Your task to perform on an android device: turn off smart reply in the gmail app Image 0: 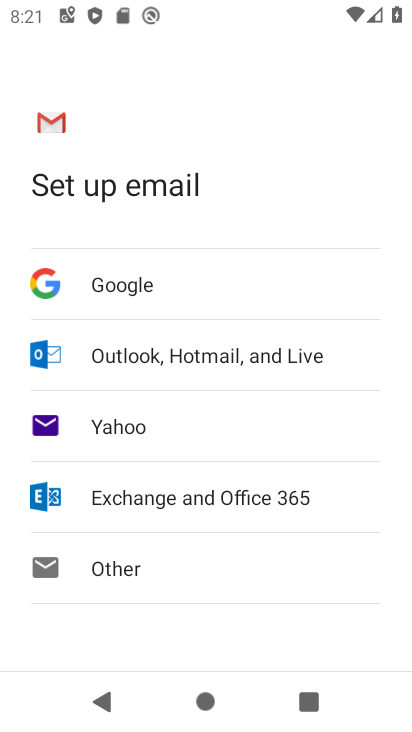
Step 0: press home button
Your task to perform on an android device: turn off smart reply in the gmail app Image 1: 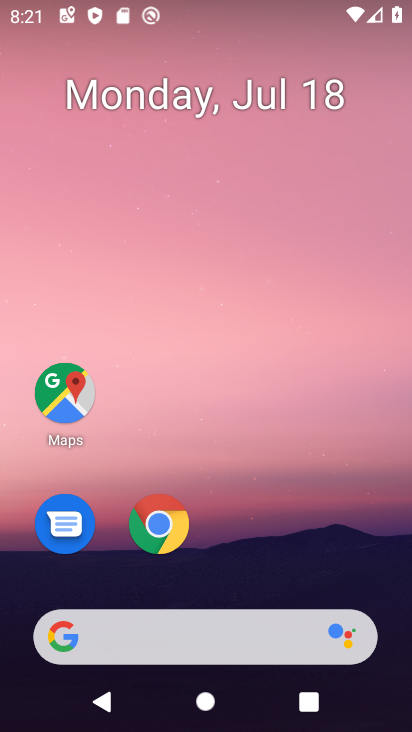
Step 1: drag from (288, 495) to (259, 49)
Your task to perform on an android device: turn off smart reply in the gmail app Image 2: 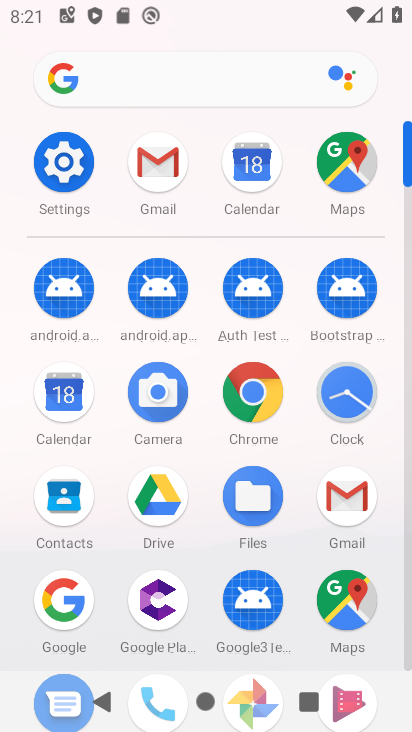
Step 2: click (174, 165)
Your task to perform on an android device: turn off smart reply in the gmail app Image 3: 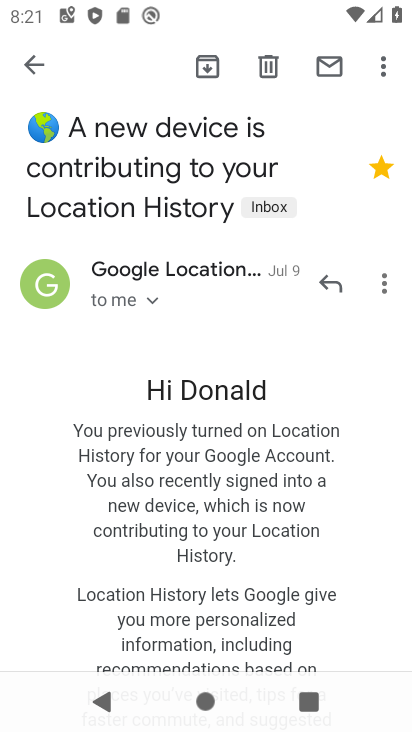
Step 3: click (36, 58)
Your task to perform on an android device: turn off smart reply in the gmail app Image 4: 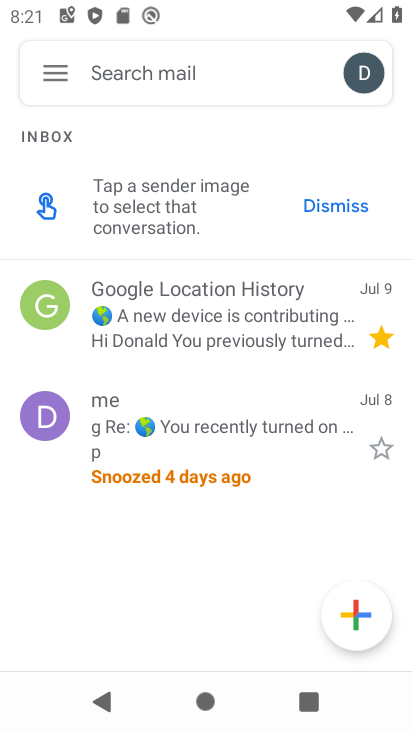
Step 4: click (52, 72)
Your task to perform on an android device: turn off smart reply in the gmail app Image 5: 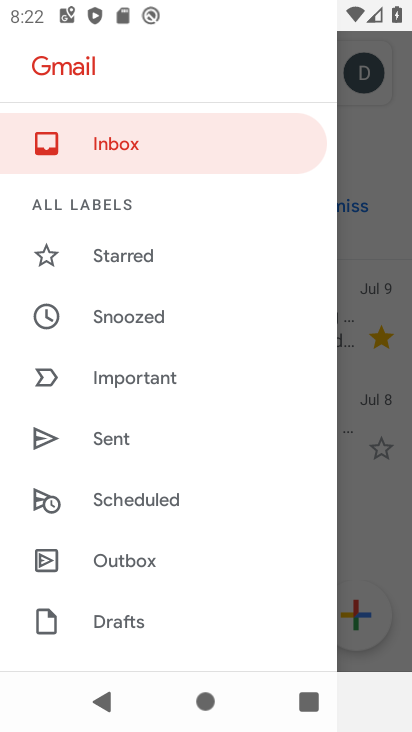
Step 5: drag from (220, 567) to (226, 63)
Your task to perform on an android device: turn off smart reply in the gmail app Image 6: 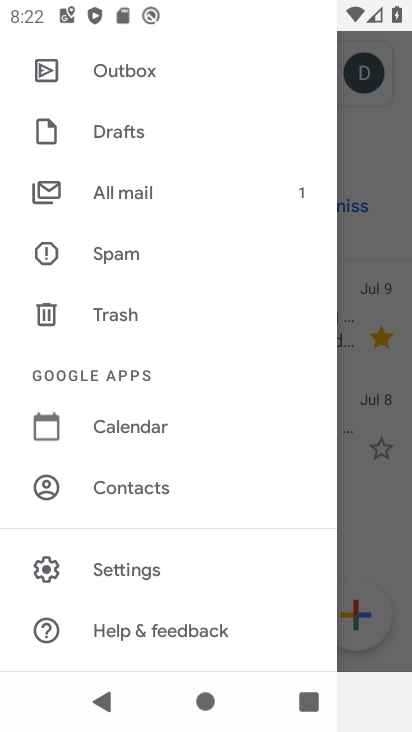
Step 6: click (150, 576)
Your task to perform on an android device: turn off smart reply in the gmail app Image 7: 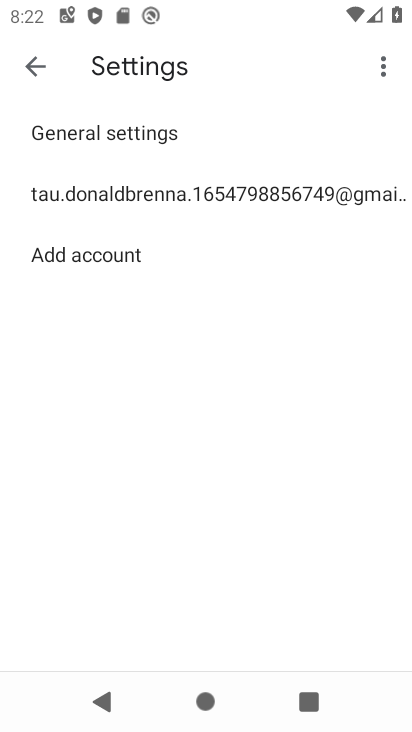
Step 7: click (234, 187)
Your task to perform on an android device: turn off smart reply in the gmail app Image 8: 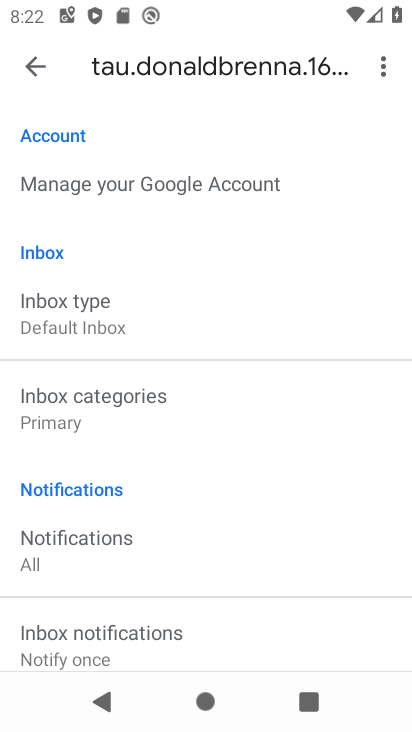
Step 8: drag from (220, 480) to (238, 99)
Your task to perform on an android device: turn off smart reply in the gmail app Image 9: 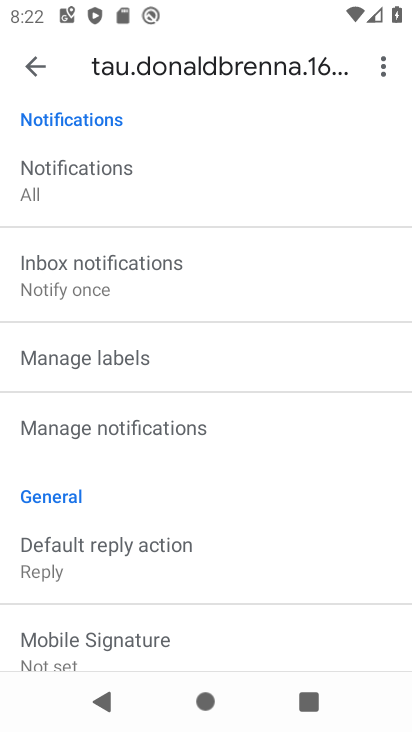
Step 9: drag from (215, 463) to (245, 124)
Your task to perform on an android device: turn off smart reply in the gmail app Image 10: 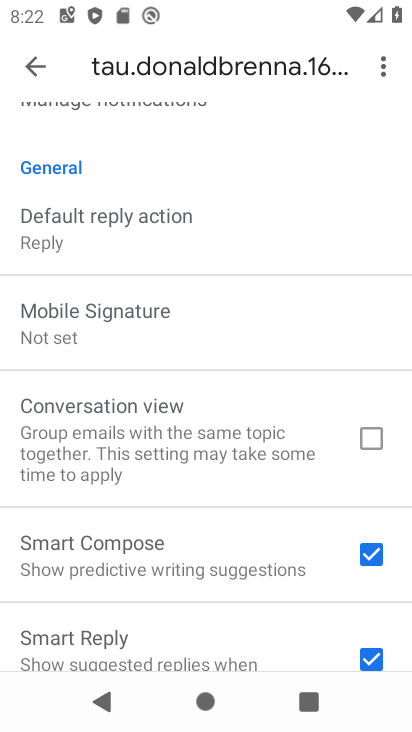
Step 10: drag from (226, 478) to (223, 201)
Your task to perform on an android device: turn off smart reply in the gmail app Image 11: 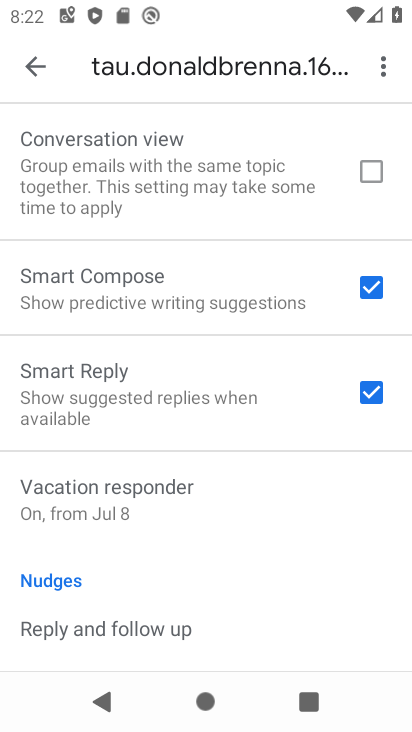
Step 11: click (364, 395)
Your task to perform on an android device: turn off smart reply in the gmail app Image 12: 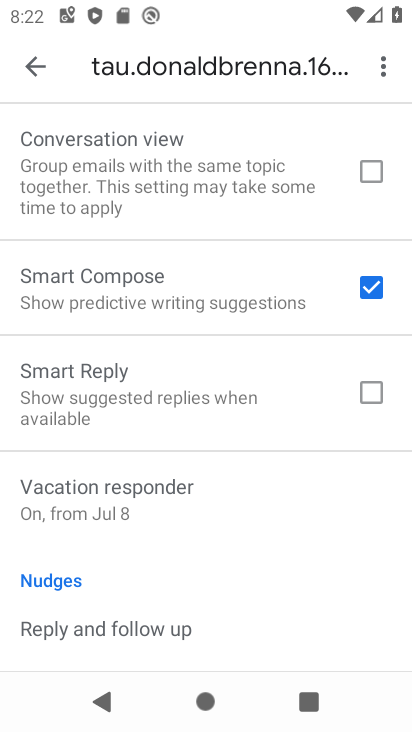
Step 12: task complete